Your task to perform on an android device: change keyboard looks Image 0: 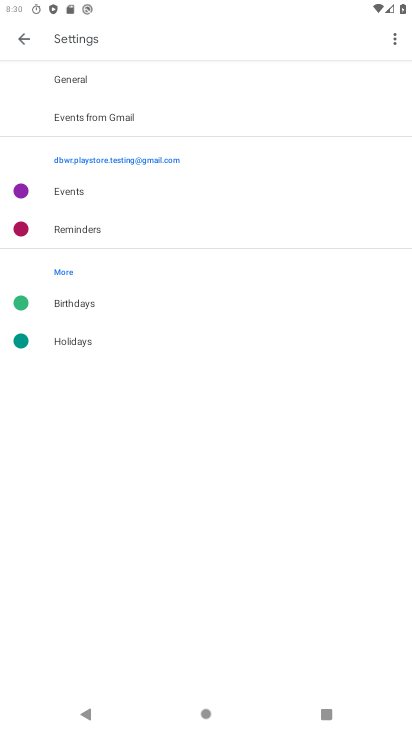
Step 0: press home button
Your task to perform on an android device: change keyboard looks Image 1: 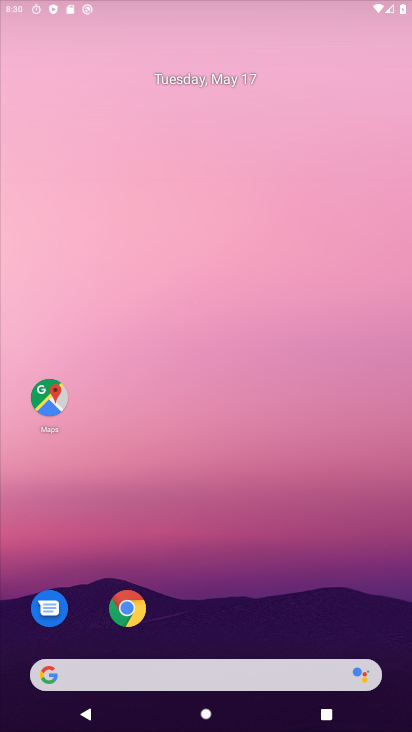
Step 1: drag from (359, 582) to (352, 112)
Your task to perform on an android device: change keyboard looks Image 2: 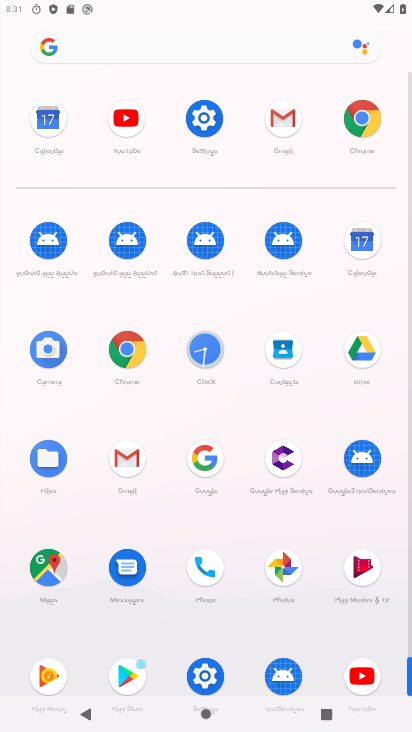
Step 2: click (207, 694)
Your task to perform on an android device: change keyboard looks Image 3: 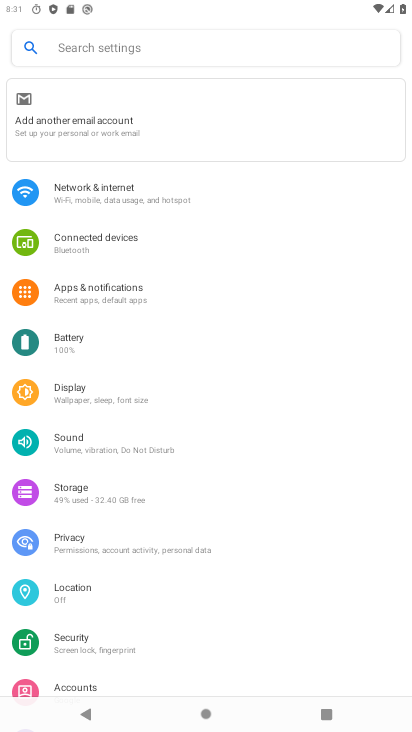
Step 3: drag from (207, 682) to (236, 353)
Your task to perform on an android device: change keyboard looks Image 4: 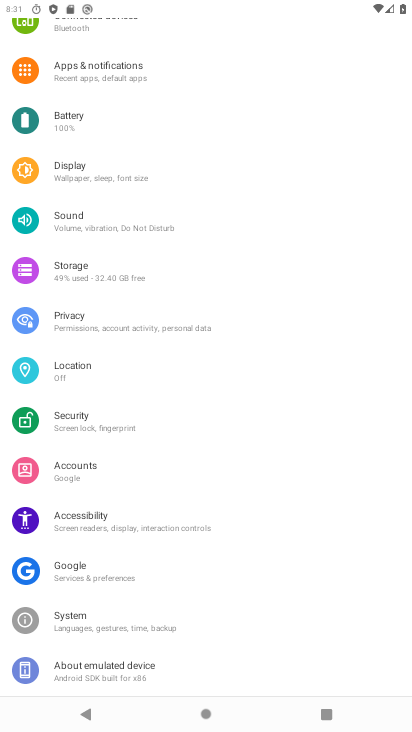
Step 4: click (75, 611)
Your task to perform on an android device: change keyboard looks Image 5: 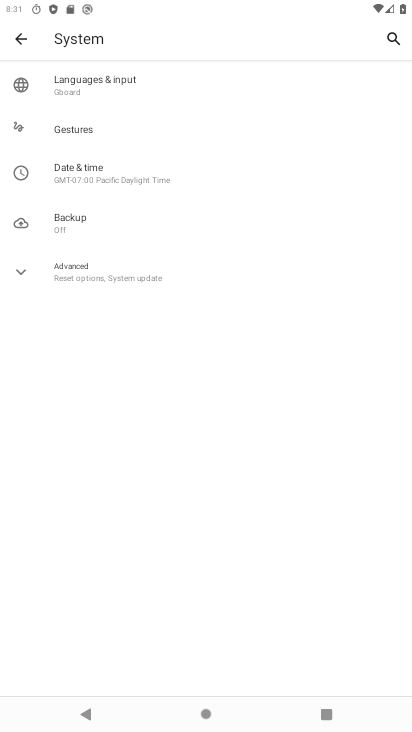
Step 5: click (91, 91)
Your task to perform on an android device: change keyboard looks Image 6: 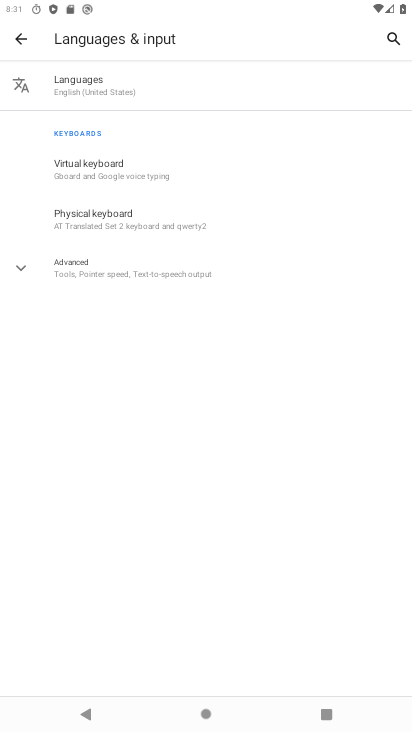
Step 6: click (106, 173)
Your task to perform on an android device: change keyboard looks Image 7: 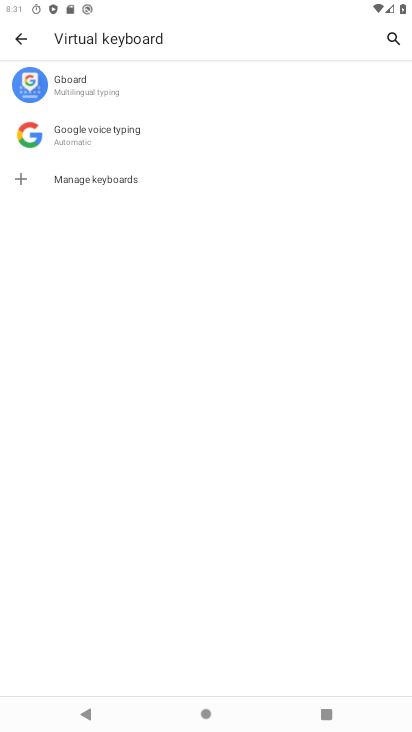
Step 7: click (110, 88)
Your task to perform on an android device: change keyboard looks Image 8: 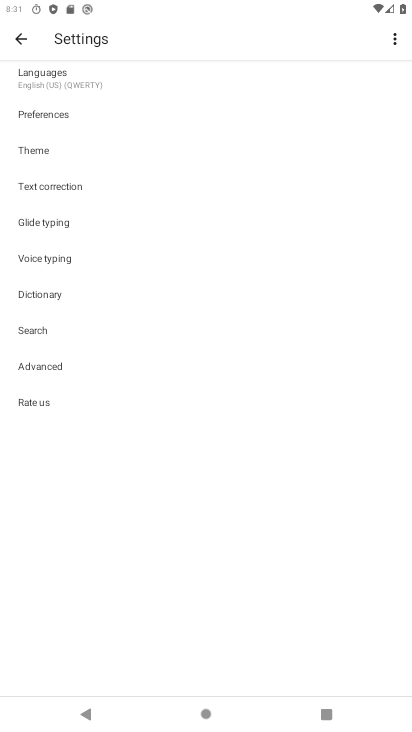
Step 8: click (66, 152)
Your task to perform on an android device: change keyboard looks Image 9: 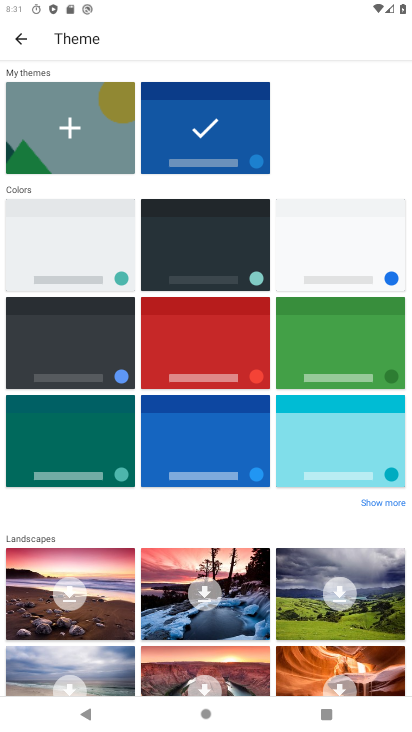
Step 9: click (199, 435)
Your task to perform on an android device: change keyboard looks Image 10: 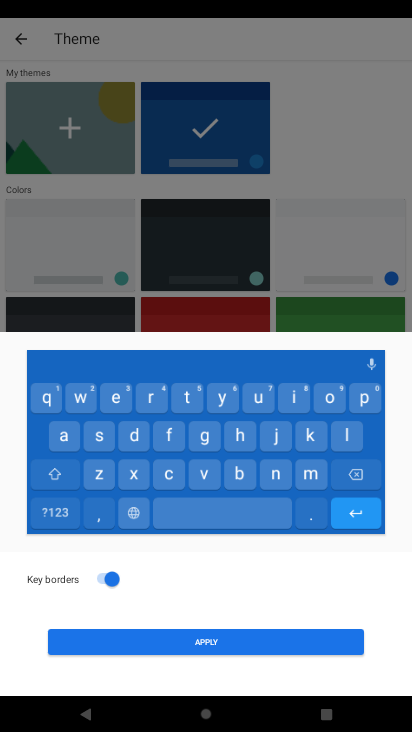
Step 10: click (155, 640)
Your task to perform on an android device: change keyboard looks Image 11: 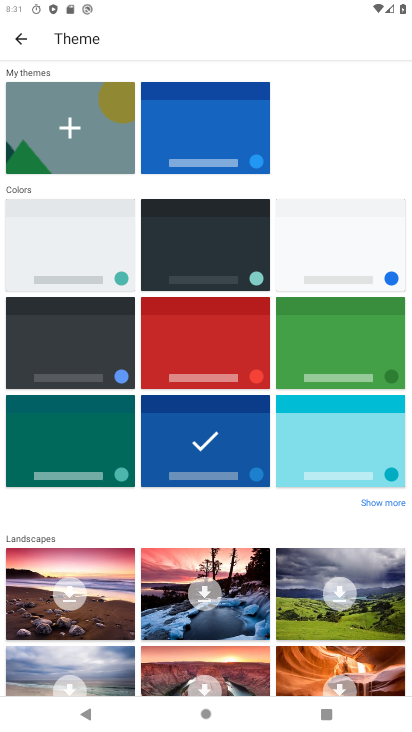
Step 11: task complete